Your task to perform on an android device: Clear the cart on newegg.com. Search for "jbl flip 4" on newegg.com, select the first entry, and add it to the cart. Image 0: 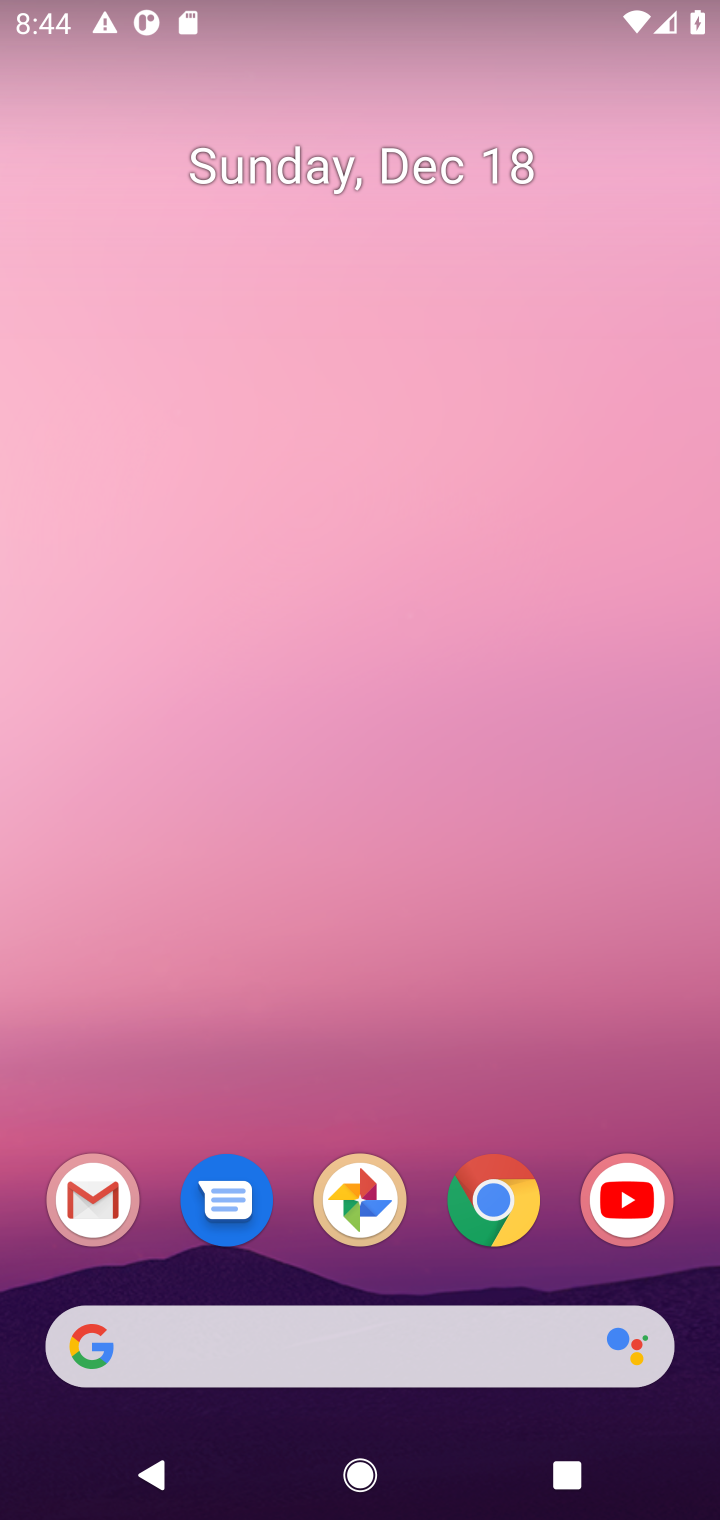
Step 0: click (492, 1211)
Your task to perform on an android device: Clear the cart on newegg.com. Search for "jbl flip 4" on newegg.com, select the first entry, and add it to the cart. Image 1: 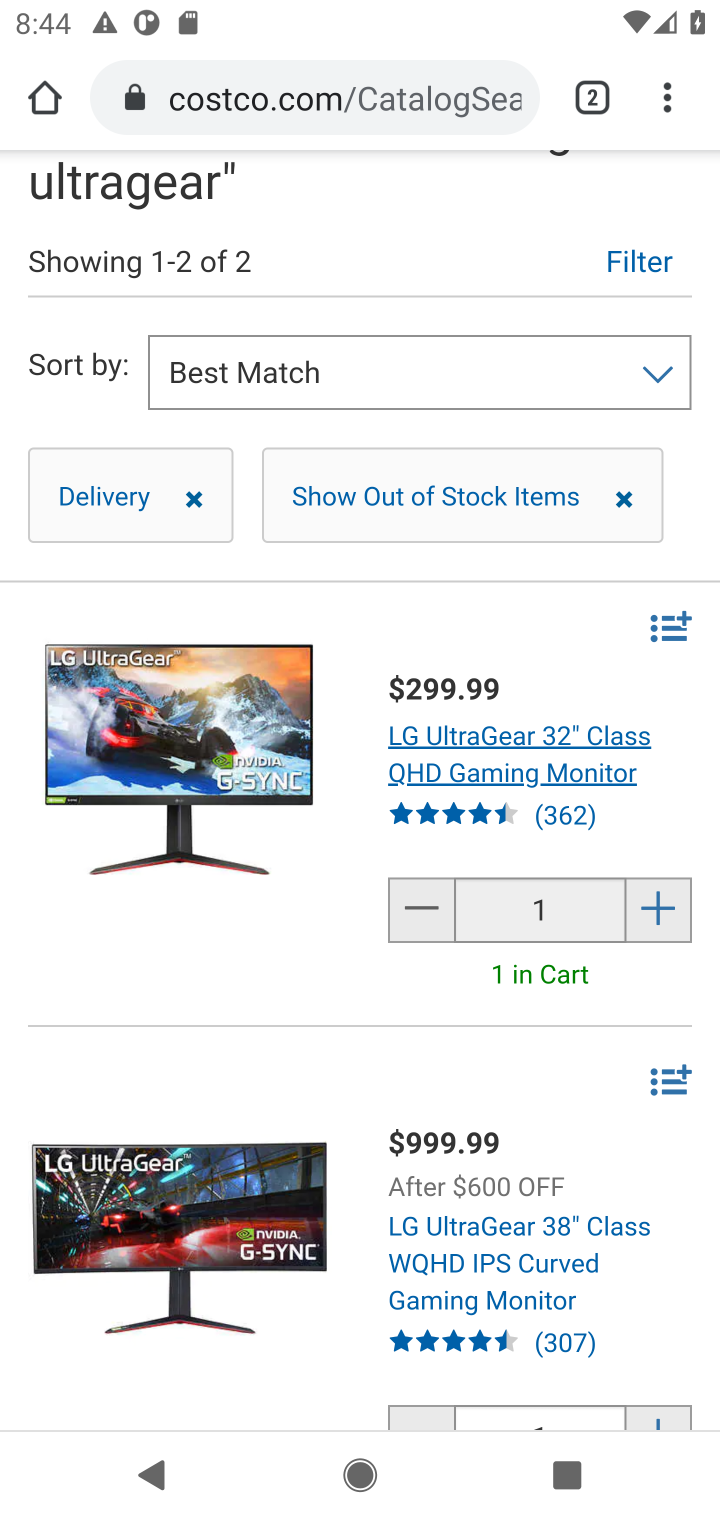
Step 1: click (269, 102)
Your task to perform on an android device: Clear the cart on newegg.com. Search for "jbl flip 4" on newegg.com, select the first entry, and add it to the cart. Image 2: 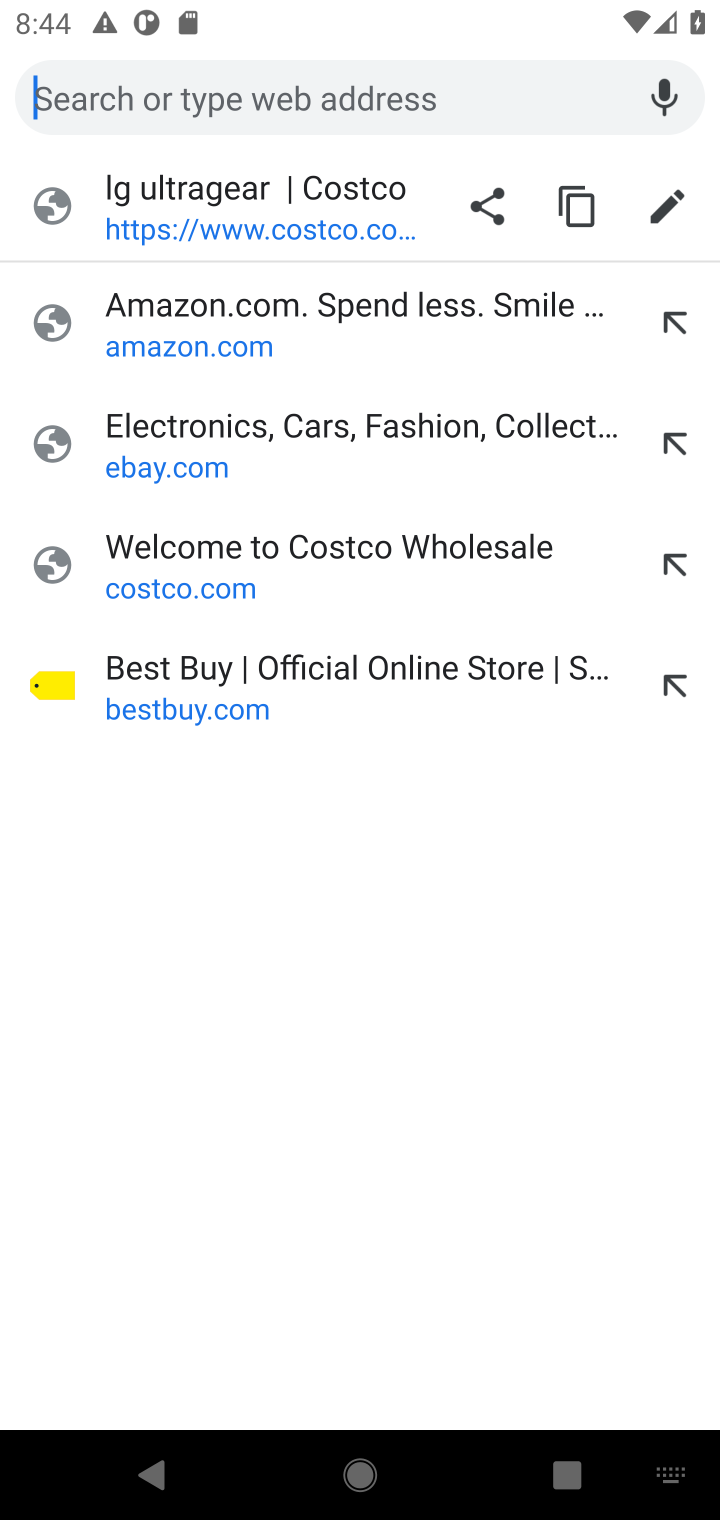
Step 2: type "newegg.com"
Your task to perform on an android device: Clear the cart on newegg.com. Search for "jbl flip 4" on newegg.com, select the first entry, and add it to the cart. Image 3: 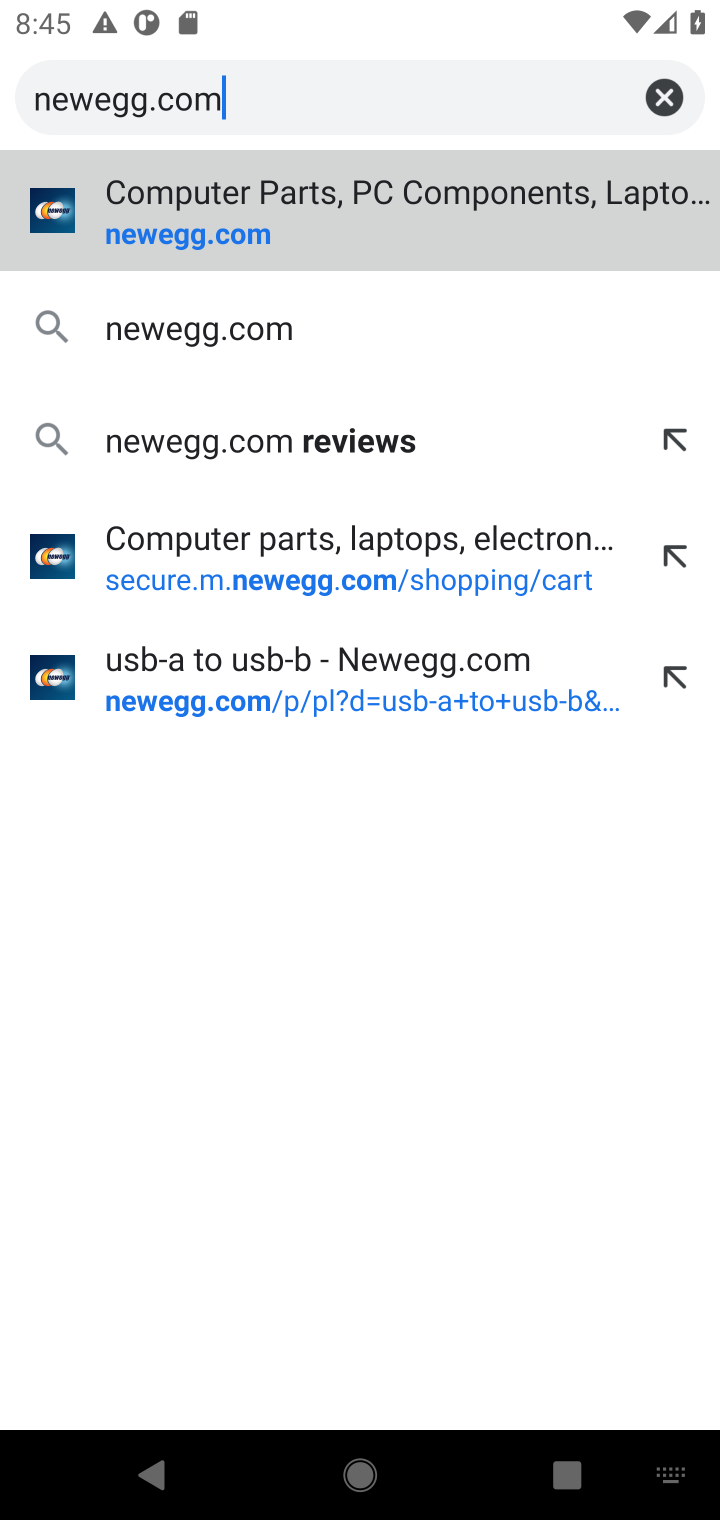
Step 3: click (158, 244)
Your task to perform on an android device: Clear the cart on newegg.com. Search for "jbl flip 4" on newegg.com, select the first entry, and add it to the cart. Image 4: 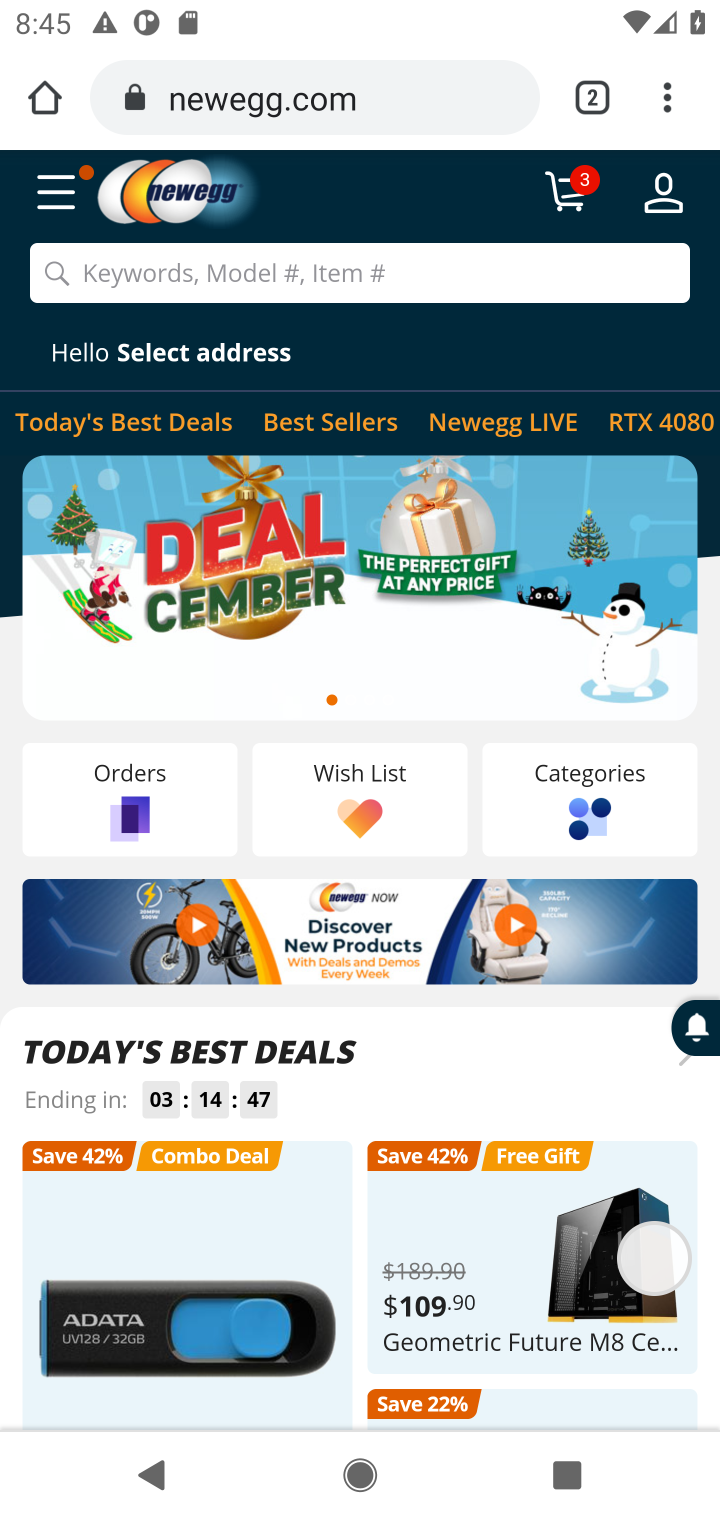
Step 4: click (562, 201)
Your task to perform on an android device: Clear the cart on newegg.com. Search for "jbl flip 4" on newegg.com, select the first entry, and add it to the cart. Image 5: 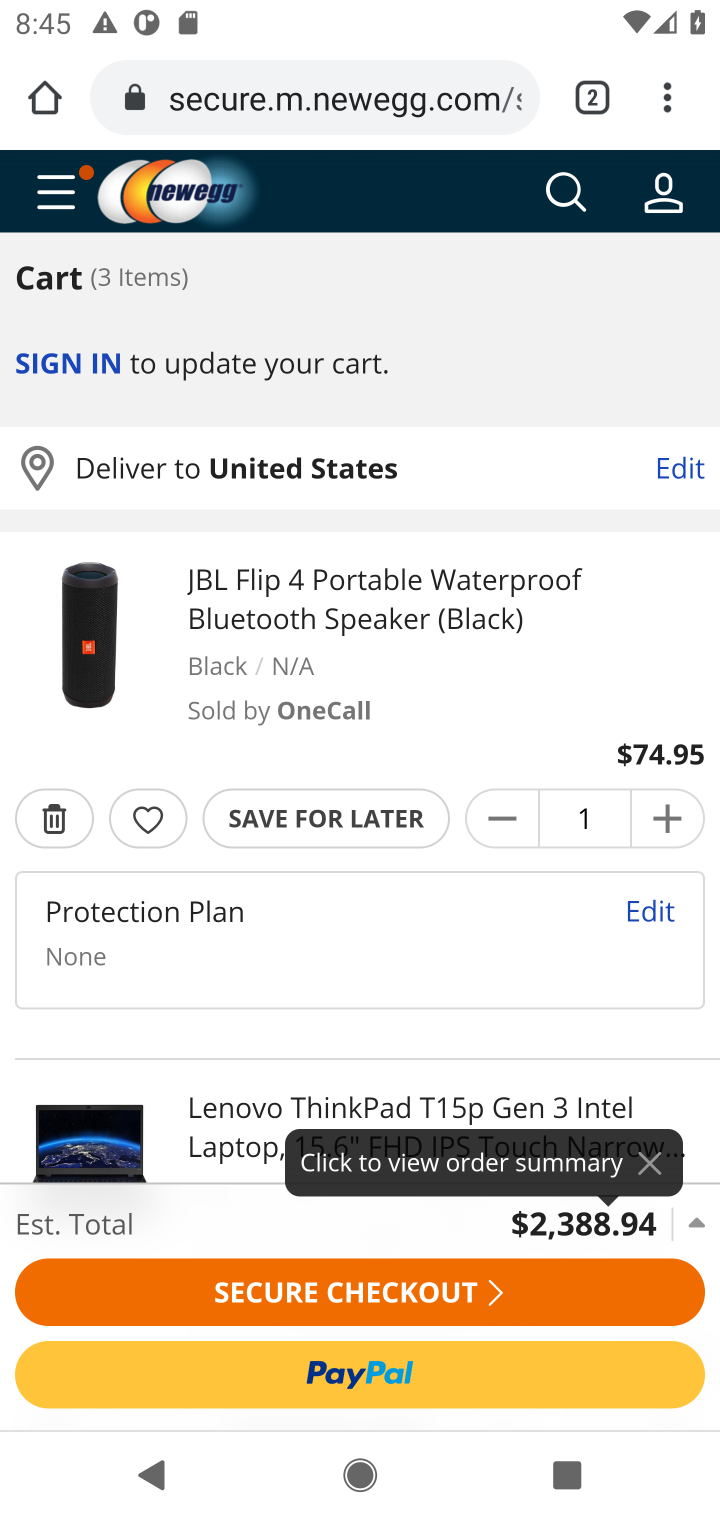
Step 5: click (42, 816)
Your task to perform on an android device: Clear the cart on newegg.com. Search for "jbl flip 4" on newegg.com, select the first entry, and add it to the cart. Image 6: 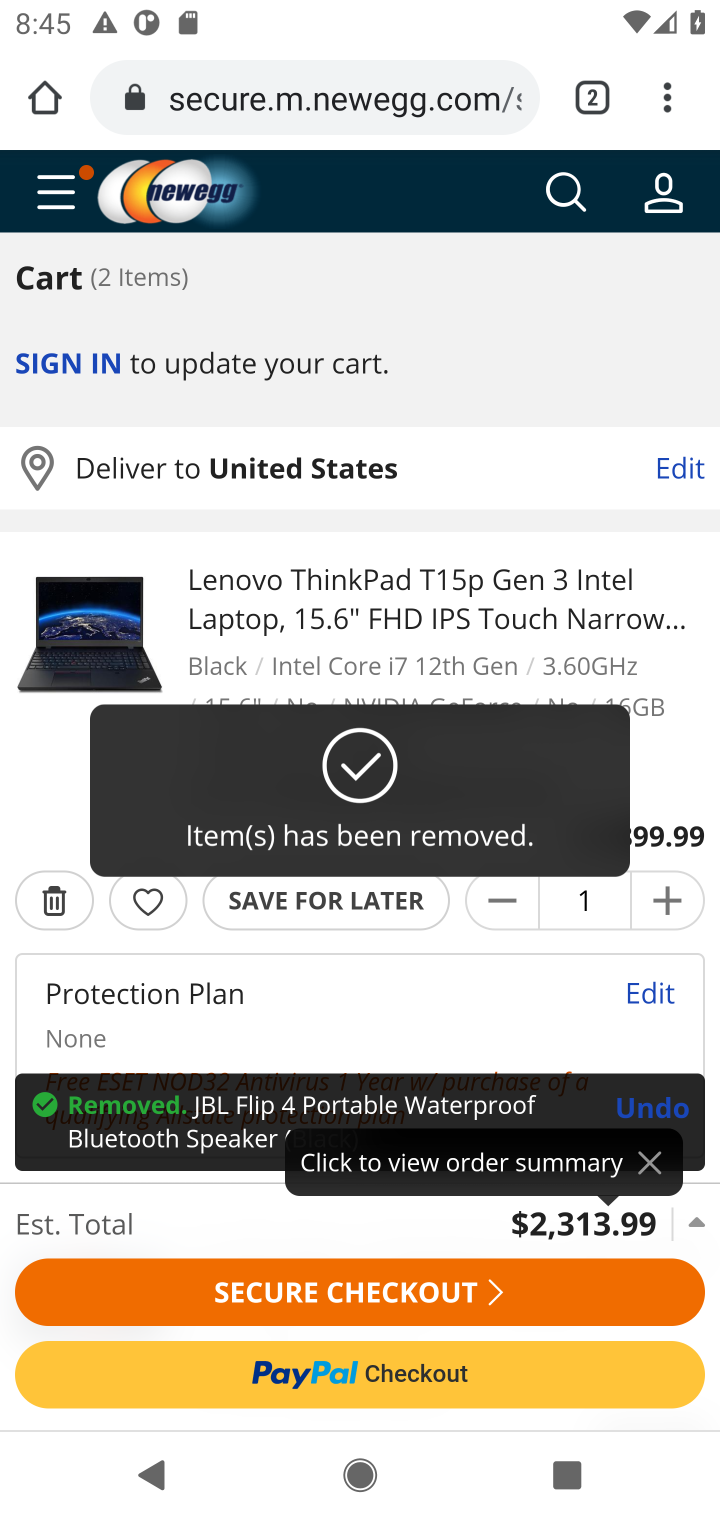
Step 6: click (53, 897)
Your task to perform on an android device: Clear the cart on newegg.com. Search for "jbl flip 4" on newegg.com, select the first entry, and add it to the cart. Image 7: 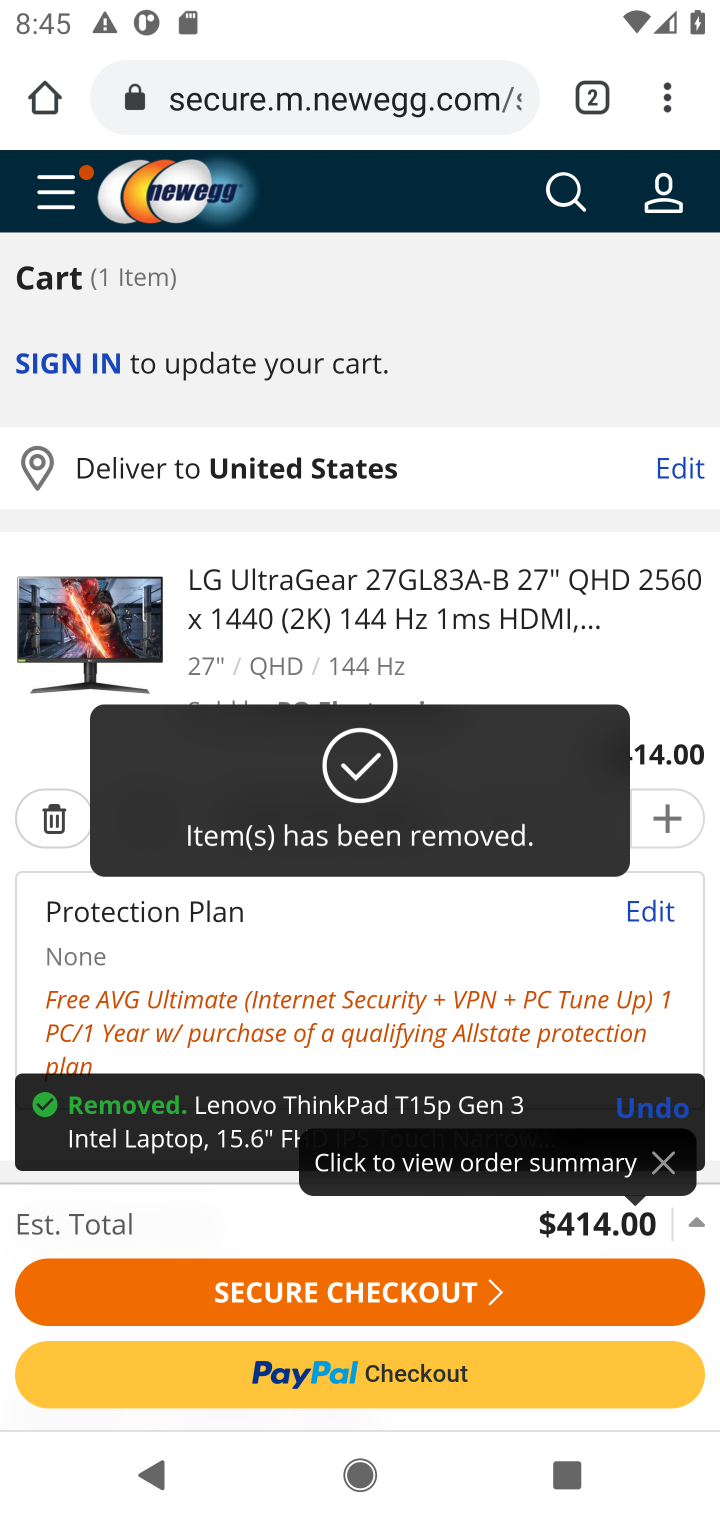
Step 7: click (31, 813)
Your task to perform on an android device: Clear the cart on newegg.com. Search for "jbl flip 4" on newegg.com, select the first entry, and add it to the cart. Image 8: 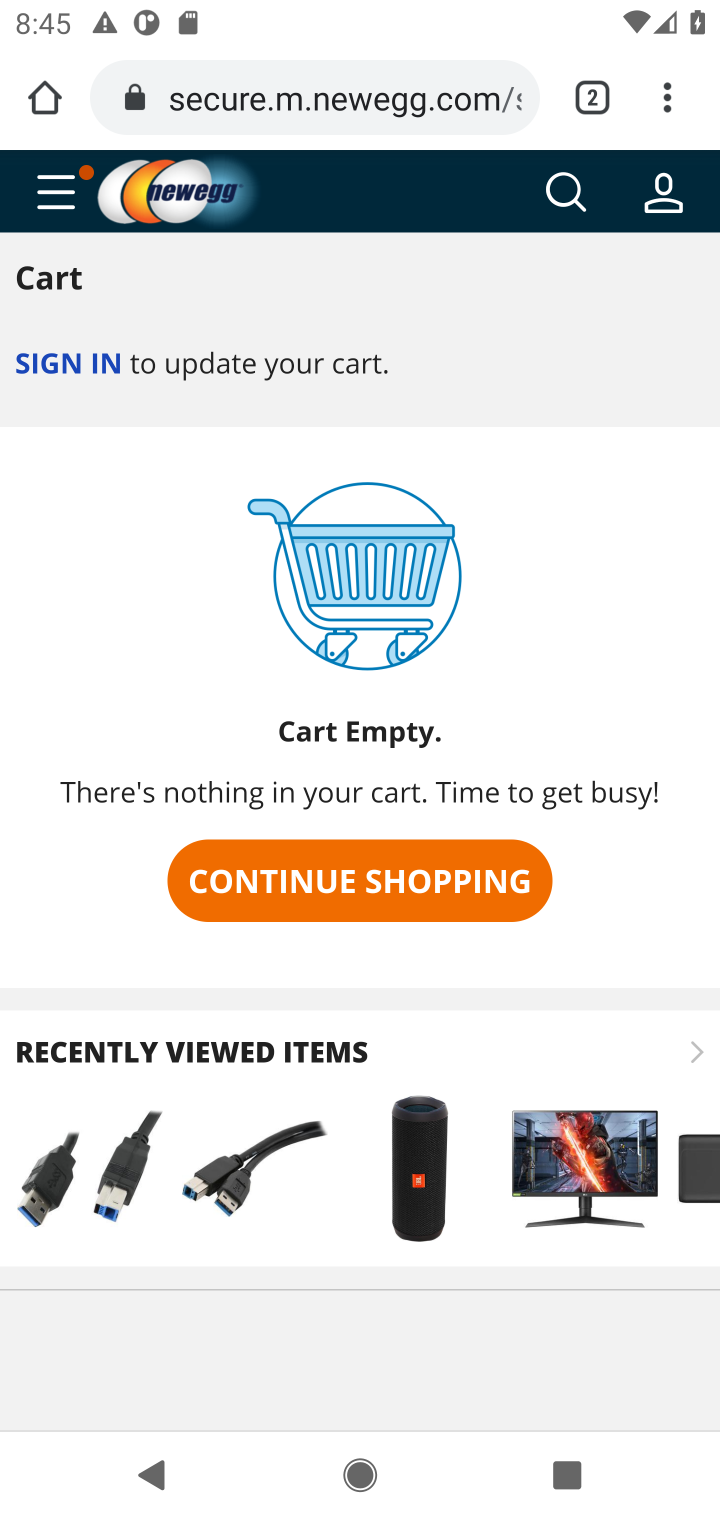
Step 8: click (556, 202)
Your task to perform on an android device: Clear the cart on newegg.com. Search for "jbl flip 4" on newegg.com, select the first entry, and add it to the cart. Image 9: 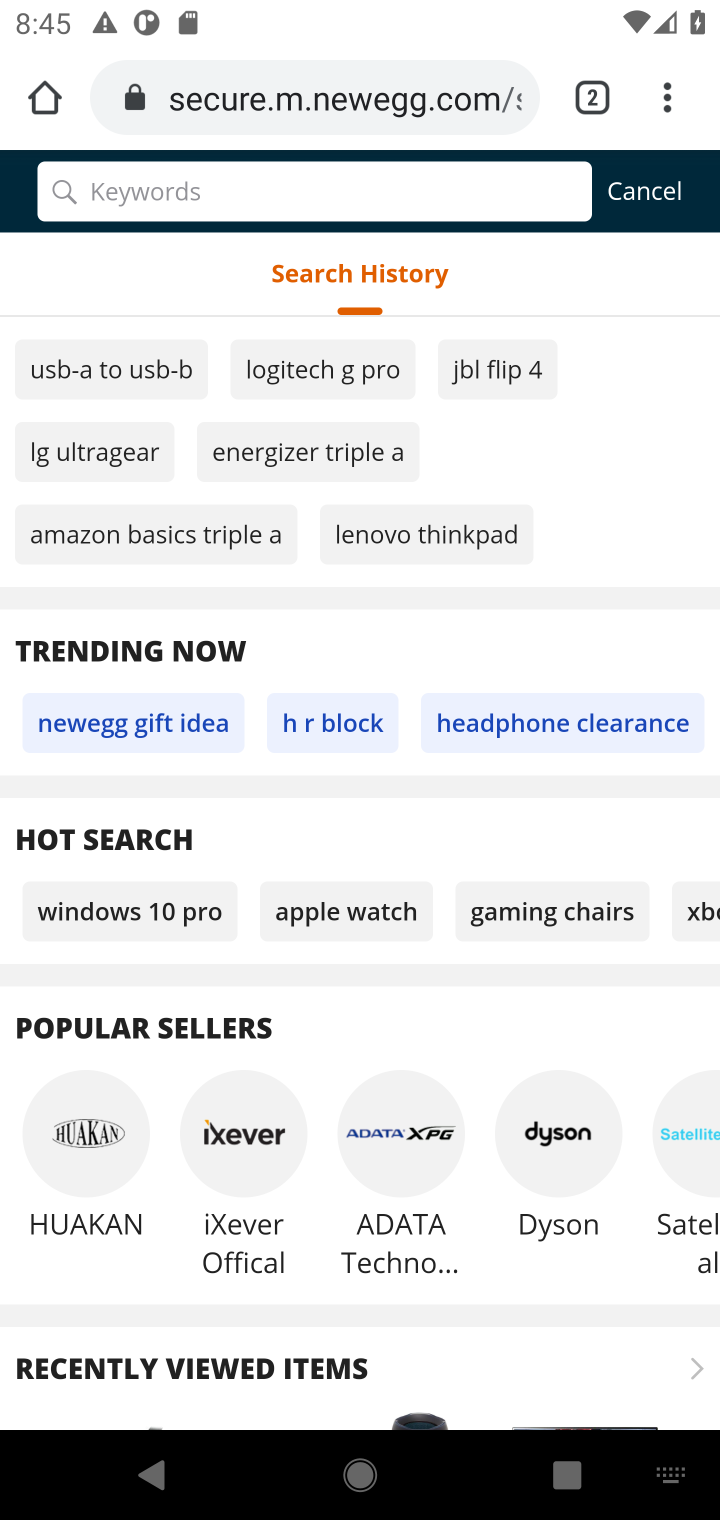
Step 9: type "jbl flip 4"
Your task to perform on an android device: Clear the cart on newegg.com. Search for "jbl flip 4" on newegg.com, select the first entry, and add it to the cart. Image 10: 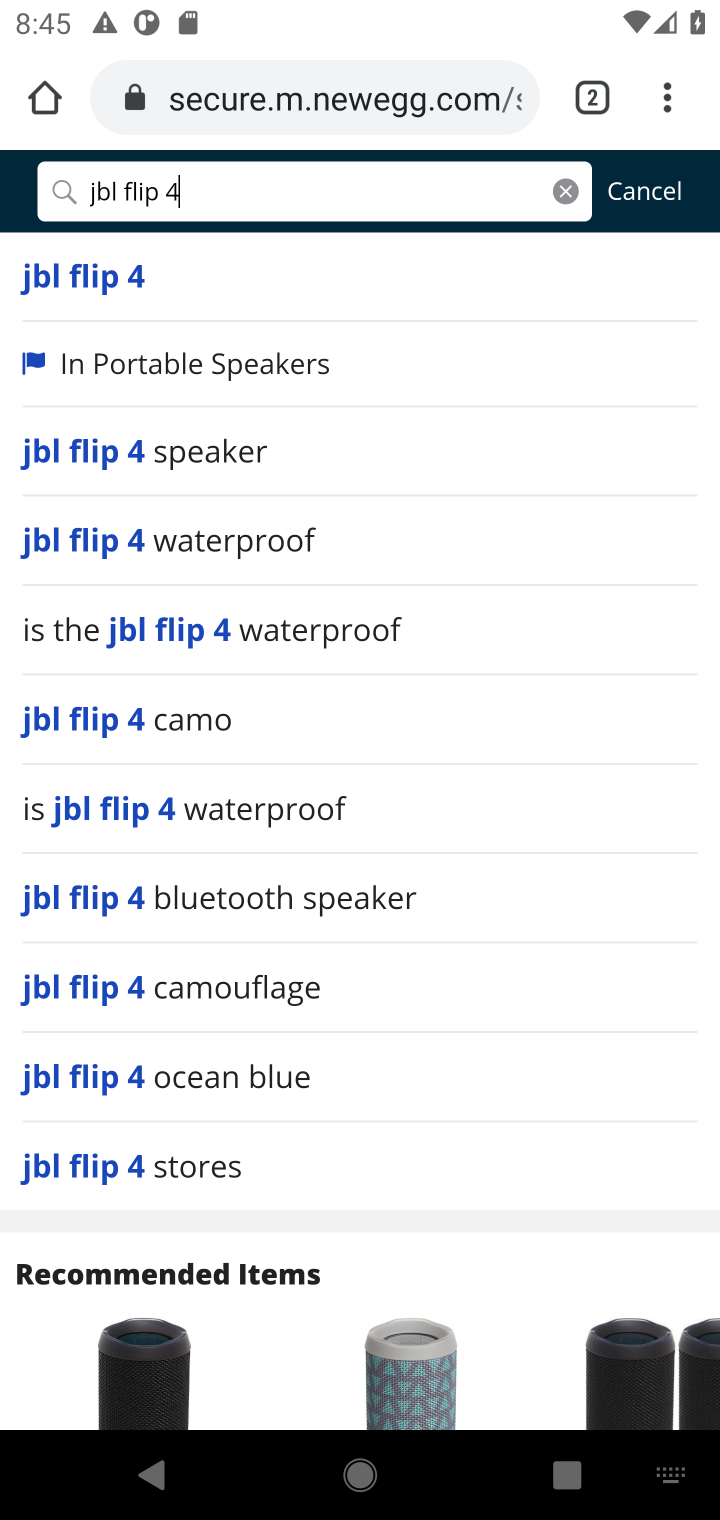
Step 10: click (84, 280)
Your task to perform on an android device: Clear the cart on newegg.com. Search for "jbl flip 4" on newegg.com, select the first entry, and add it to the cart. Image 11: 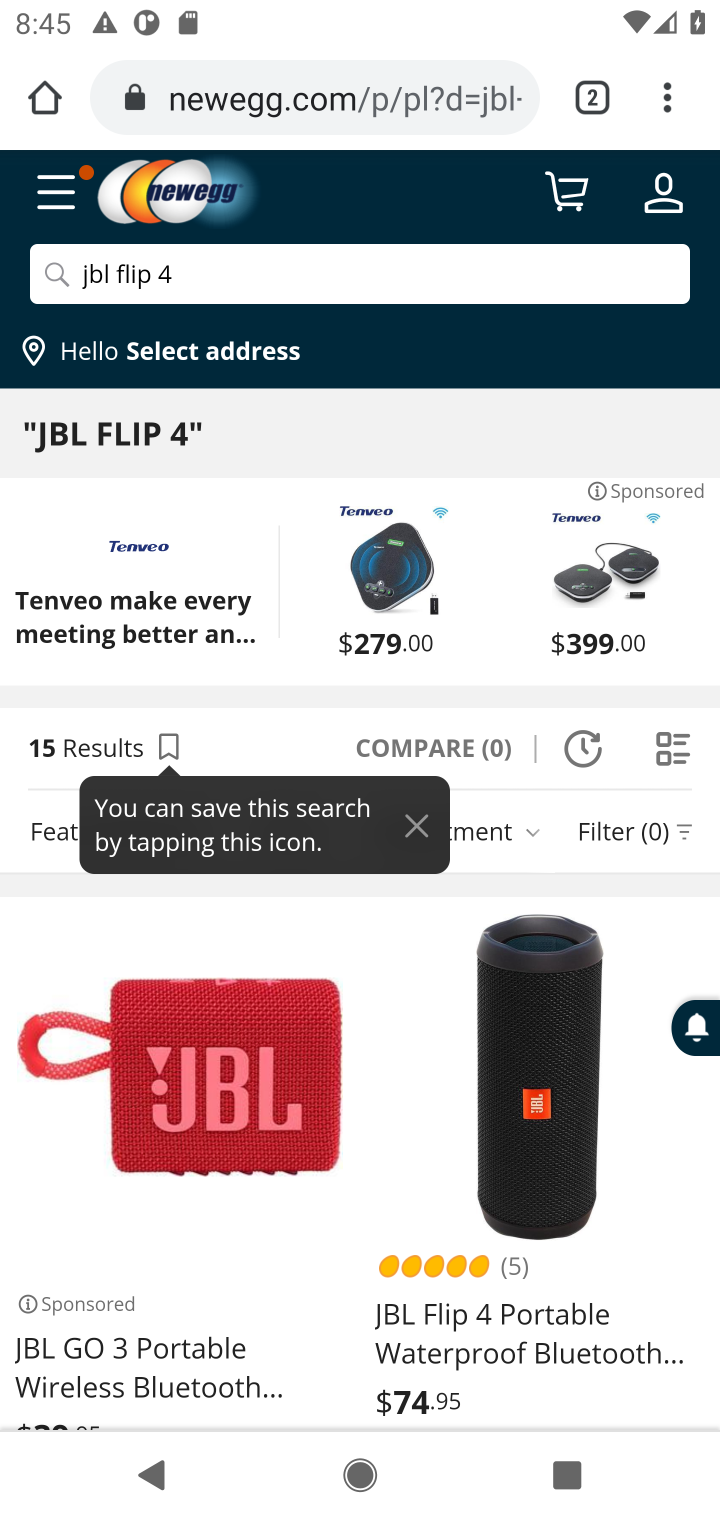
Step 11: task complete